Your task to perform on an android device: change the clock display to analog Image 0: 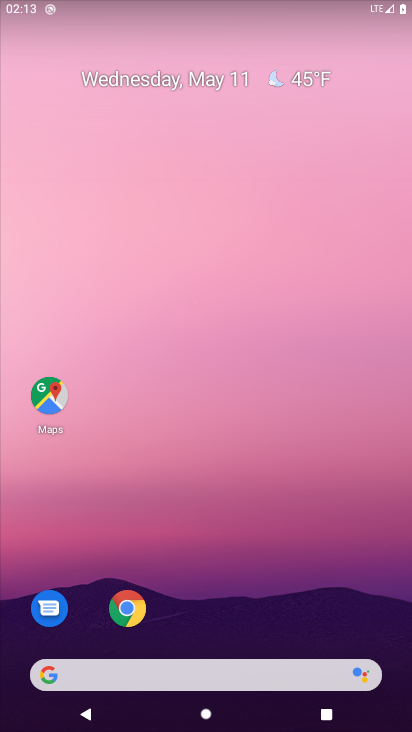
Step 0: drag from (232, 636) to (271, 165)
Your task to perform on an android device: change the clock display to analog Image 1: 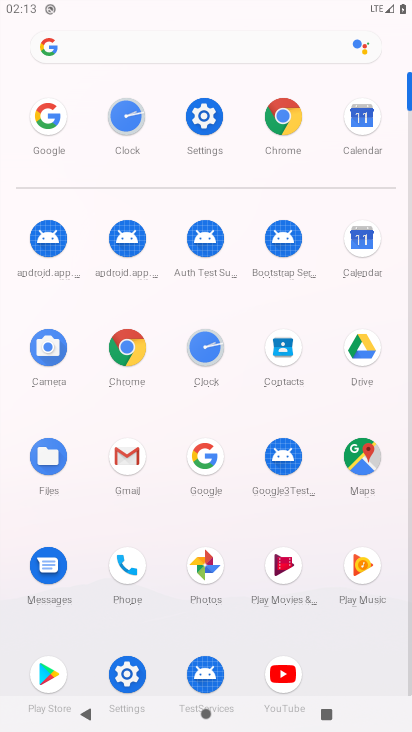
Step 1: click (205, 341)
Your task to perform on an android device: change the clock display to analog Image 2: 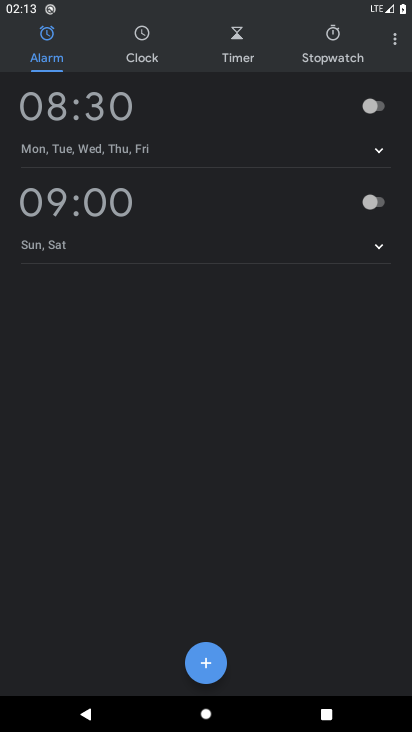
Step 2: click (395, 43)
Your task to perform on an android device: change the clock display to analog Image 3: 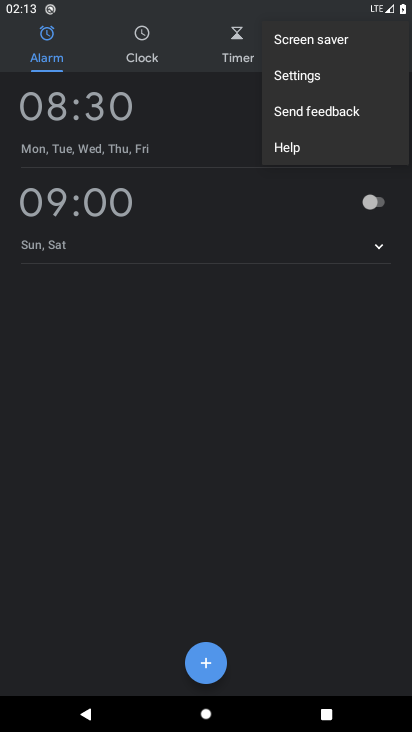
Step 3: click (325, 81)
Your task to perform on an android device: change the clock display to analog Image 4: 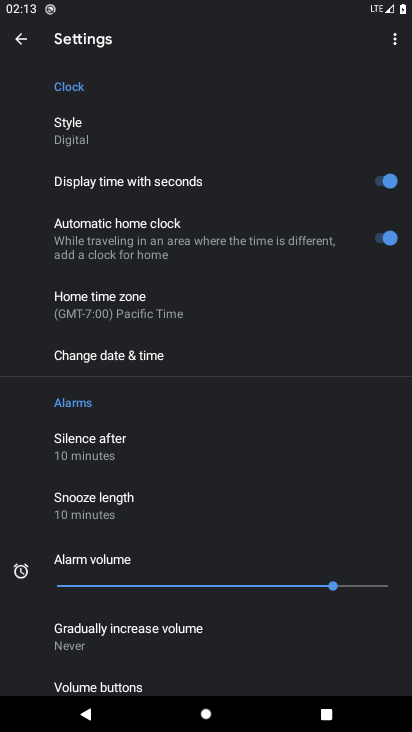
Step 4: click (96, 123)
Your task to perform on an android device: change the clock display to analog Image 5: 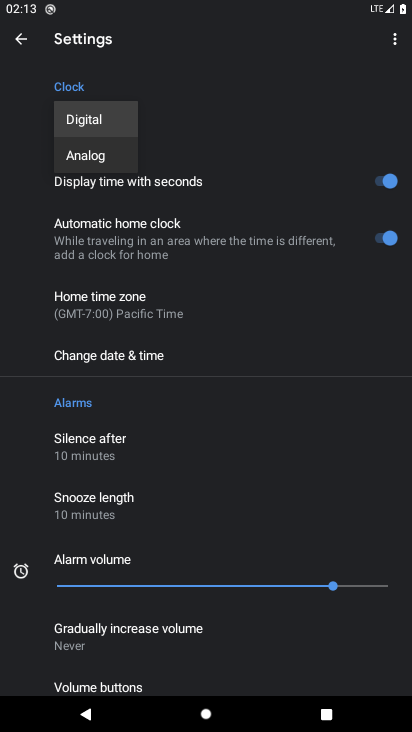
Step 5: click (107, 165)
Your task to perform on an android device: change the clock display to analog Image 6: 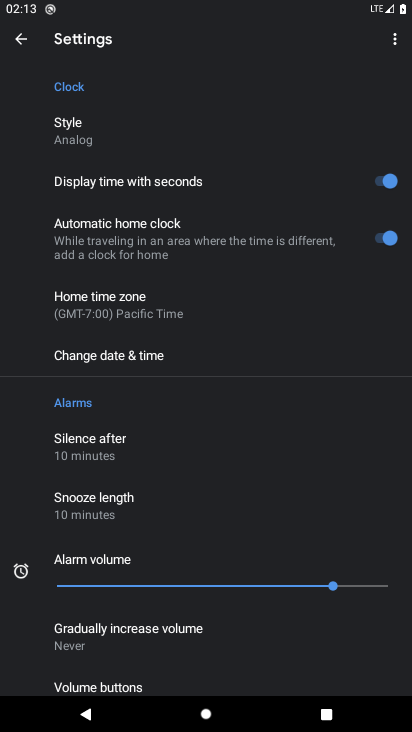
Step 6: task complete